Your task to perform on an android device: Go to sound settings Image 0: 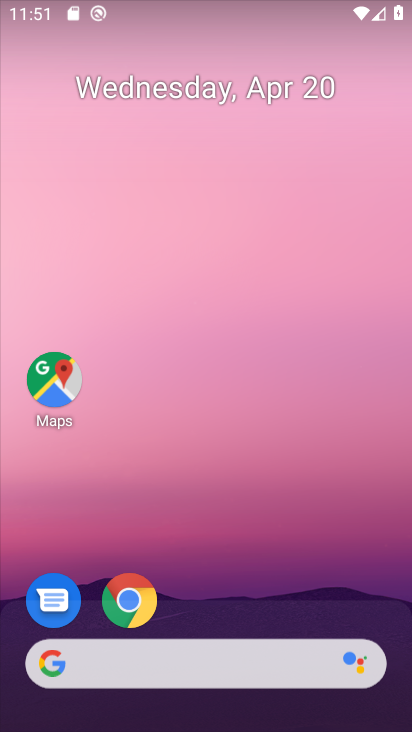
Step 0: drag from (259, 475) to (244, 241)
Your task to perform on an android device: Go to sound settings Image 1: 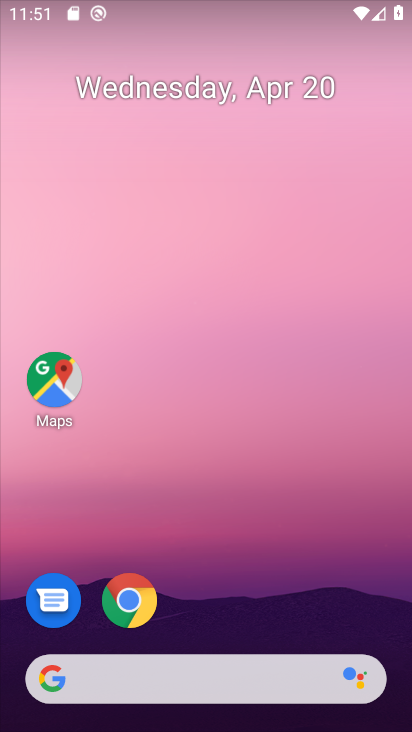
Step 1: drag from (314, 458) to (330, 118)
Your task to perform on an android device: Go to sound settings Image 2: 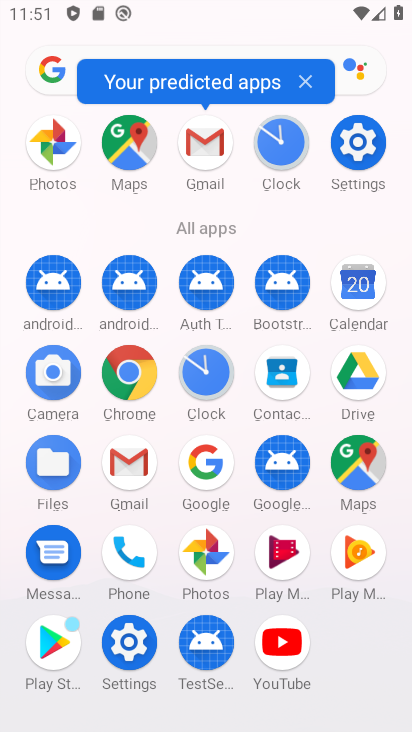
Step 2: click (362, 152)
Your task to perform on an android device: Go to sound settings Image 3: 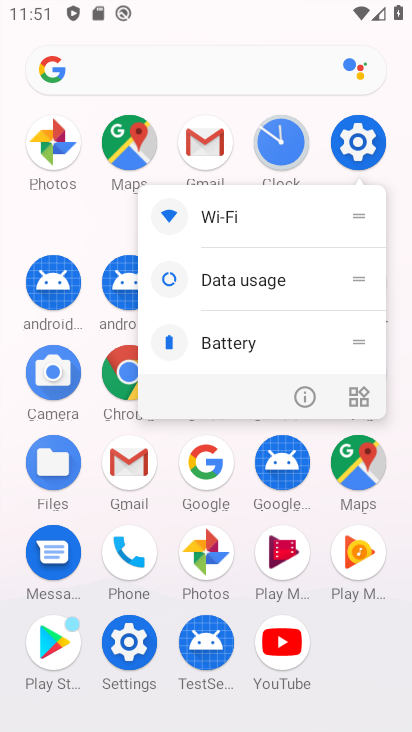
Step 3: click (352, 157)
Your task to perform on an android device: Go to sound settings Image 4: 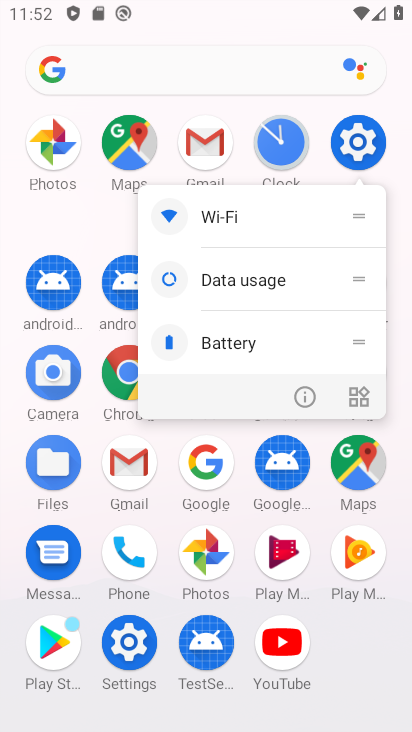
Step 4: click (345, 142)
Your task to perform on an android device: Go to sound settings Image 5: 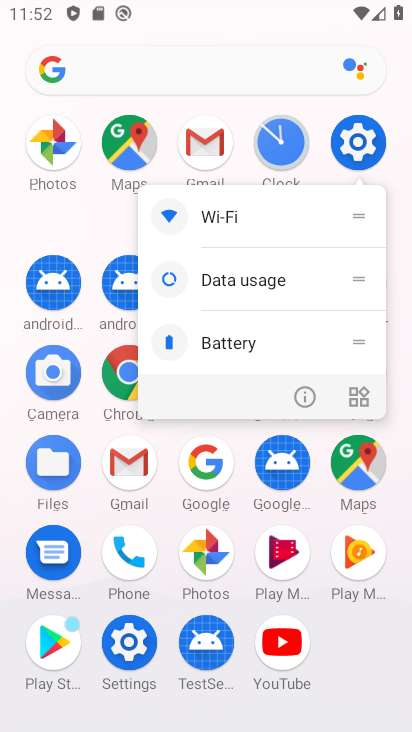
Step 5: click (350, 155)
Your task to perform on an android device: Go to sound settings Image 6: 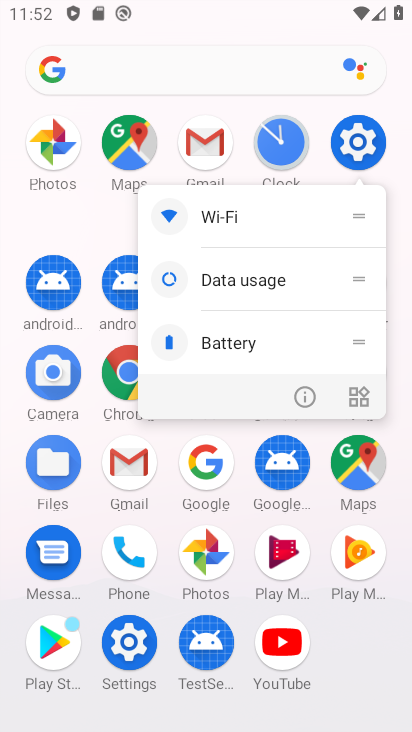
Step 6: click (119, 649)
Your task to perform on an android device: Go to sound settings Image 7: 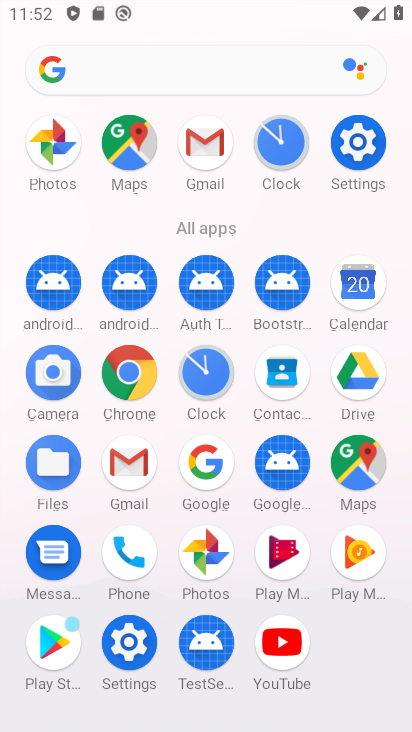
Step 7: click (123, 651)
Your task to perform on an android device: Go to sound settings Image 8: 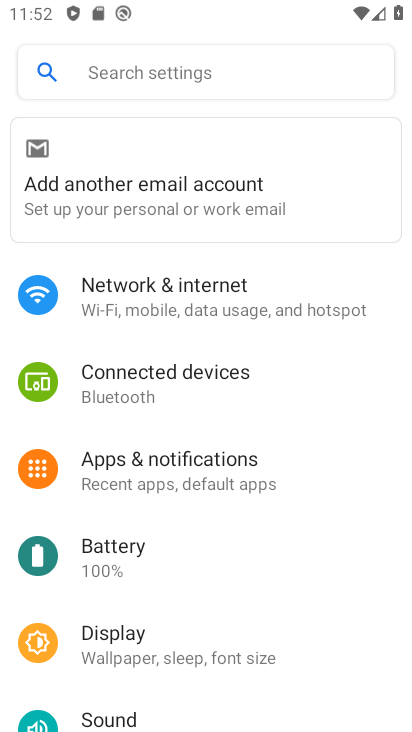
Step 8: click (138, 709)
Your task to perform on an android device: Go to sound settings Image 9: 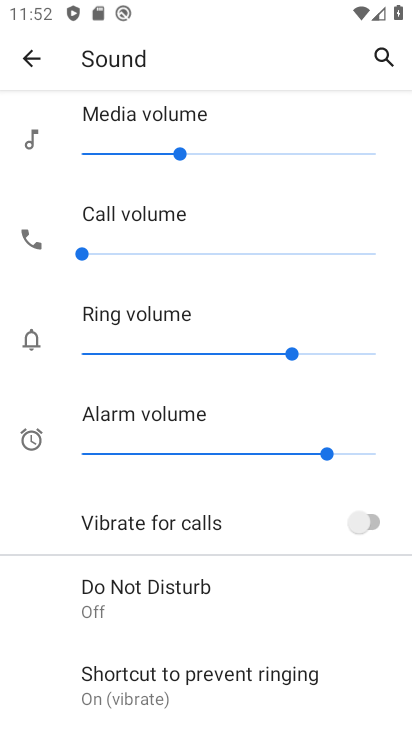
Step 9: task complete